Your task to perform on an android device: set the timer Image 0: 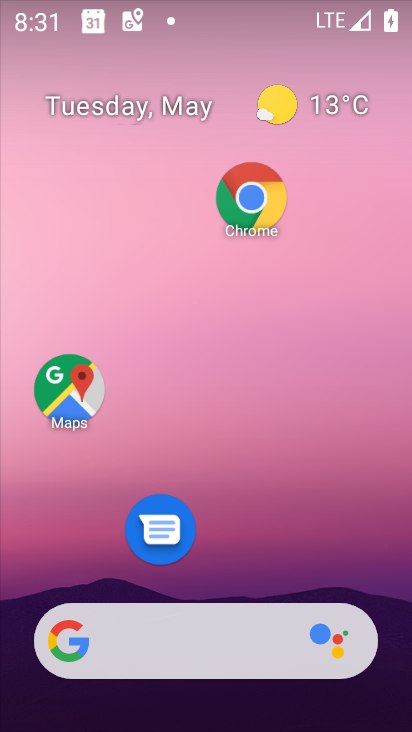
Step 0: drag from (345, 571) to (334, 127)
Your task to perform on an android device: set the timer Image 1: 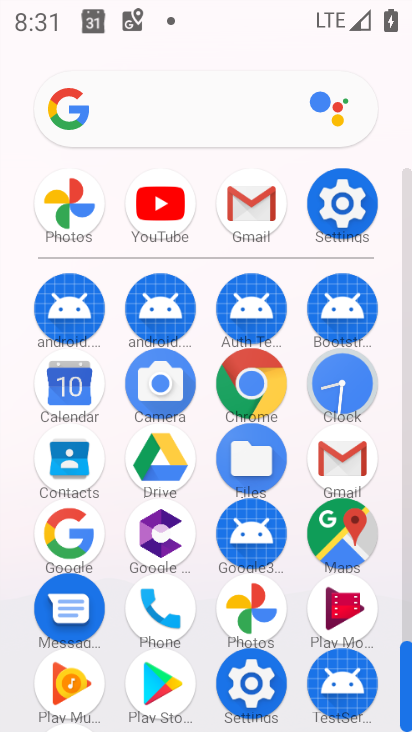
Step 1: click (346, 183)
Your task to perform on an android device: set the timer Image 2: 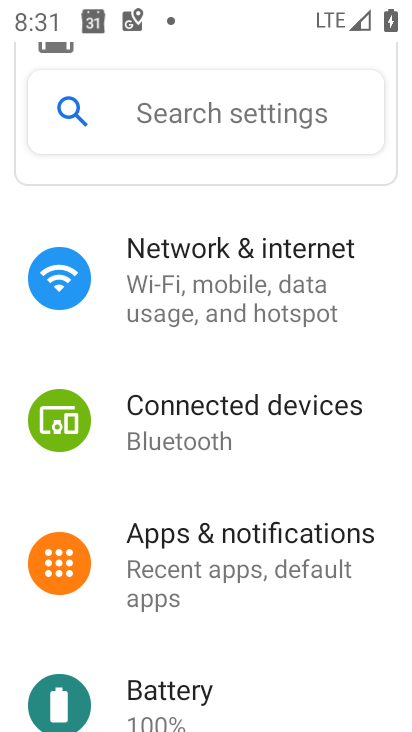
Step 2: press home button
Your task to perform on an android device: set the timer Image 3: 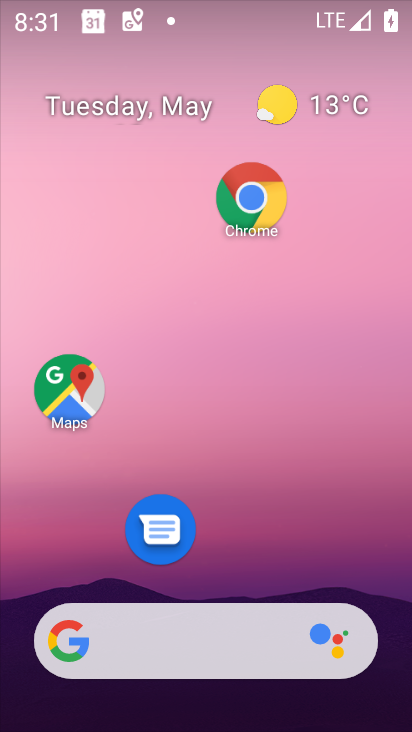
Step 3: drag from (313, 562) to (323, 160)
Your task to perform on an android device: set the timer Image 4: 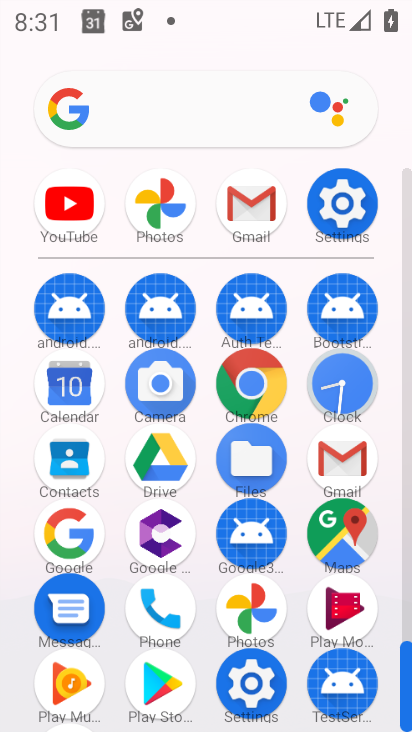
Step 4: click (364, 396)
Your task to perform on an android device: set the timer Image 5: 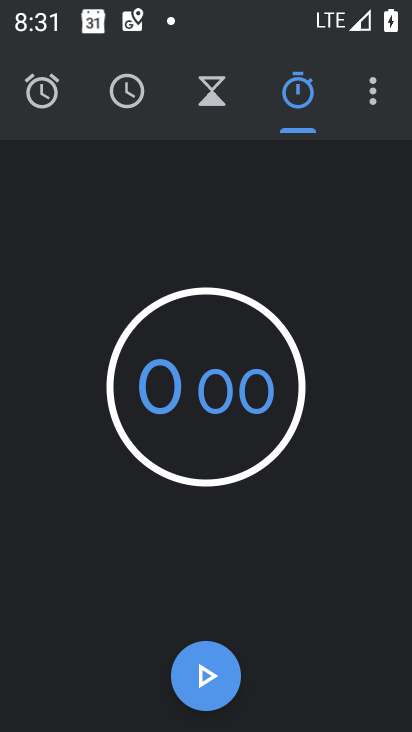
Step 5: task complete